Your task to perform on an android device: check battery use Image 0: 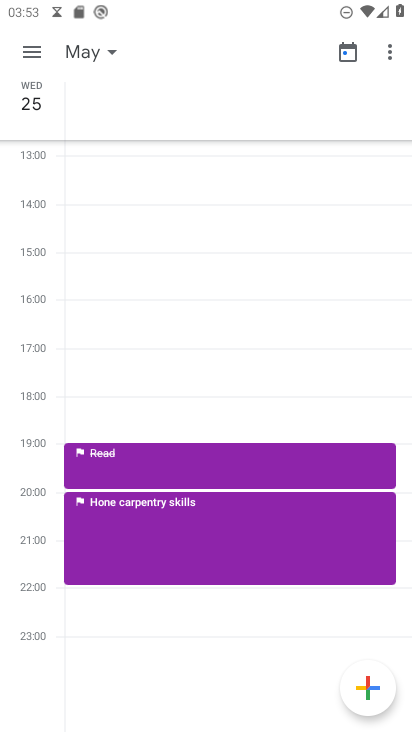
Step 0: press back button
Your task to perform on an android device: check battery use Image 1: 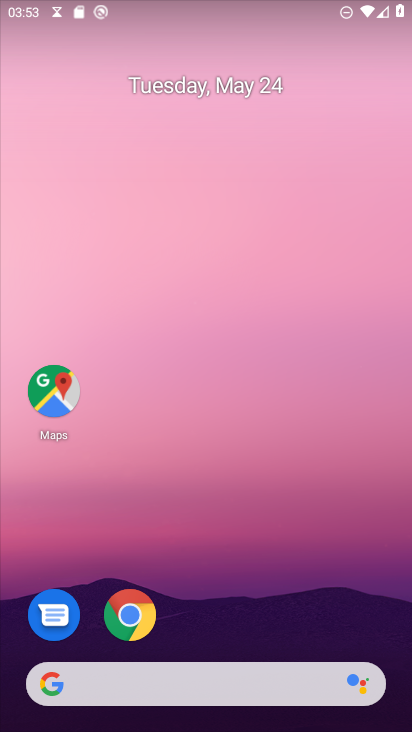
Step 1: drag from (273, 505) to (214, 69)
Your task to perform on an android device: check battery use Image 2: 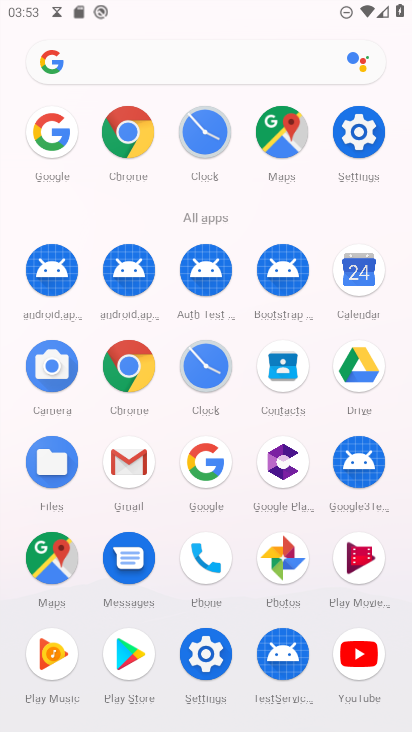
Step 2: click (205, 653)
Your task to perform on an android device: check battery use Image 3: 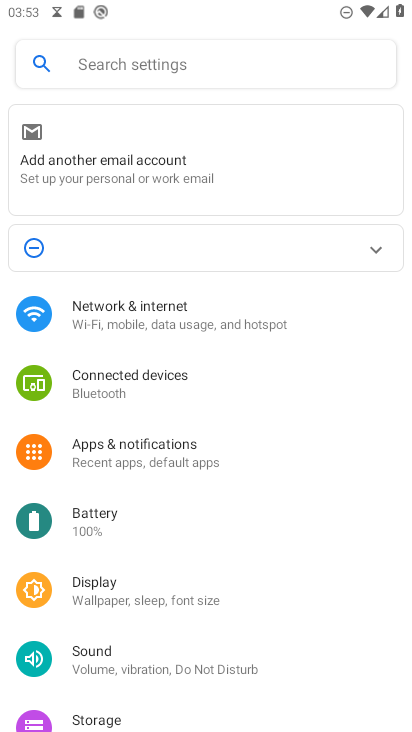
Step 3: drag from (304, 624) to (322, 235)
Your task to perform on an android device: check battery use Image 4: 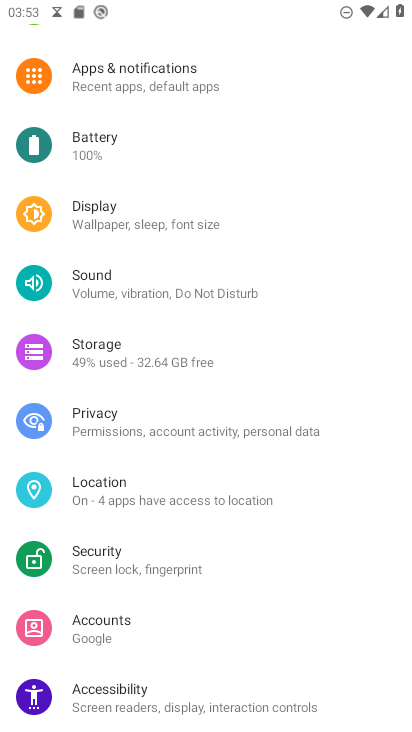
Step 4: click (124, 146)
Your task to perform on an android device: check battery use Image 5: 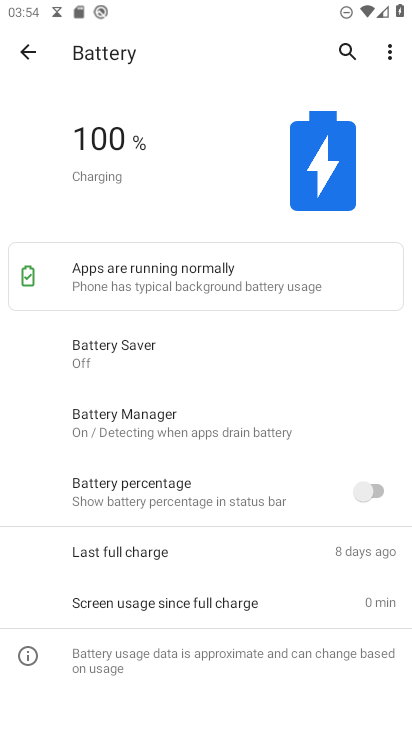
Step 5: task complete